Your task to perform on an android device: change the clock display to show seconds Image 0: 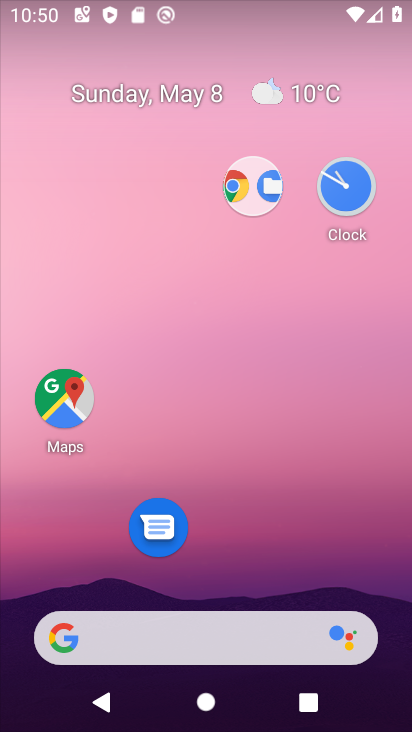
Step 0: drag from (255, 591) to (104, 105)
Your task to perform on an android device: change the clock display to show seconds Image 1: 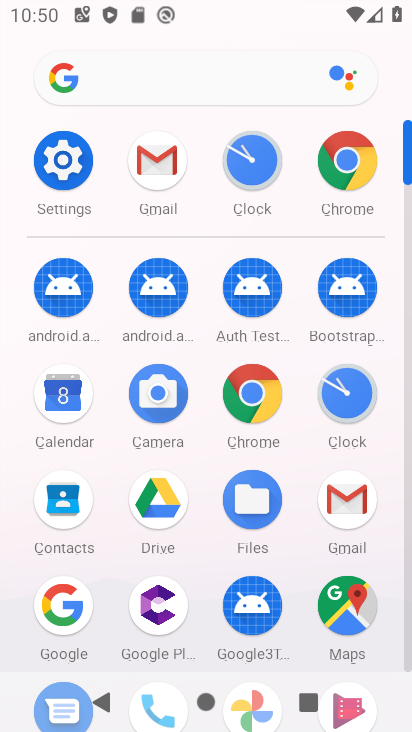
Step 1: click (351, 387)
Your task to perform on an android device: change the clock display to show seconds Image 2: 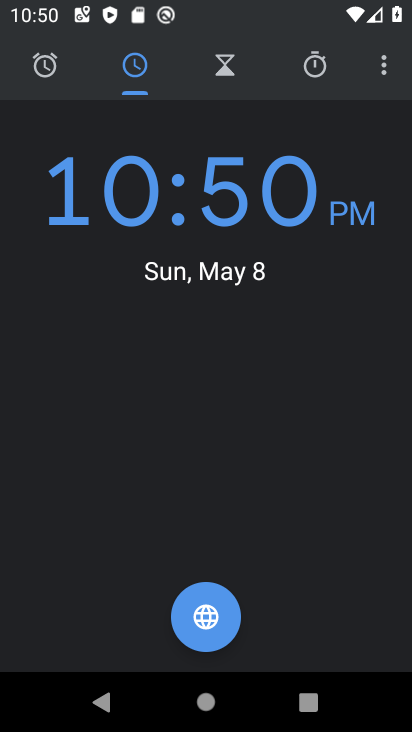
Step 2: click (387, 63)
Your task to perform on an android device: change the clock display to show seconds Image 3: 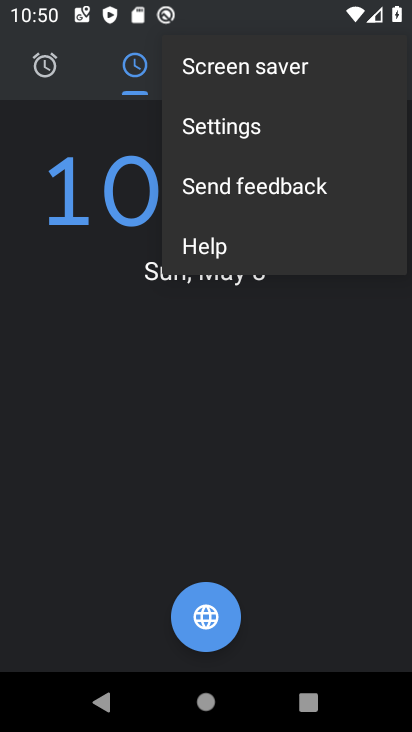
Step 3: click (237, 139)
Your task to perform on an android device: change the clock display to show seconds Image 4: 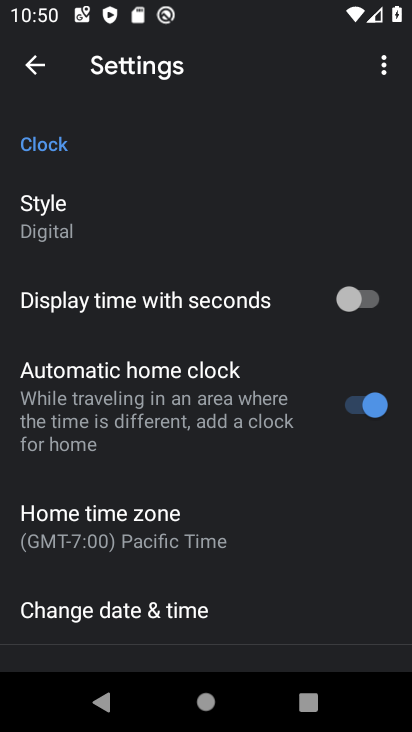
Step 4: click (373, 294)
Your task to perform on an android device: change the clock display to show seconds Image 5: 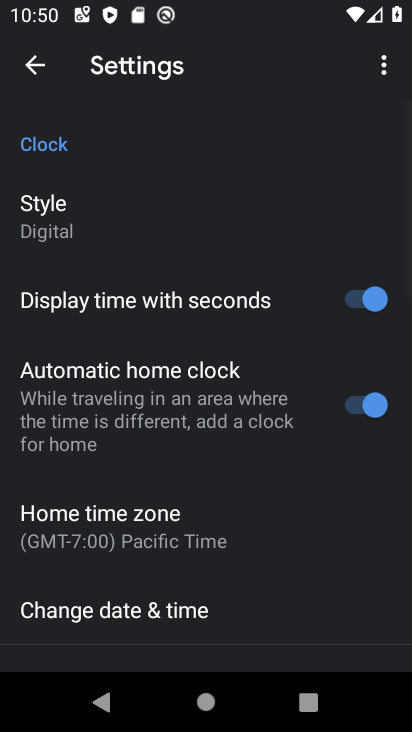
Step 5: task complete